Your task to perform on an android device: Open wifi settings Image 0: 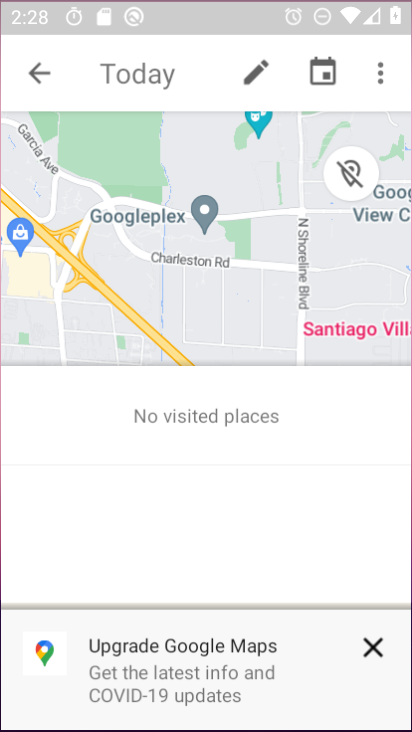
Step 0: drag from (327, 512) to (311, 176)
Your task to perform on an android device: Open wifi settings Image 1: 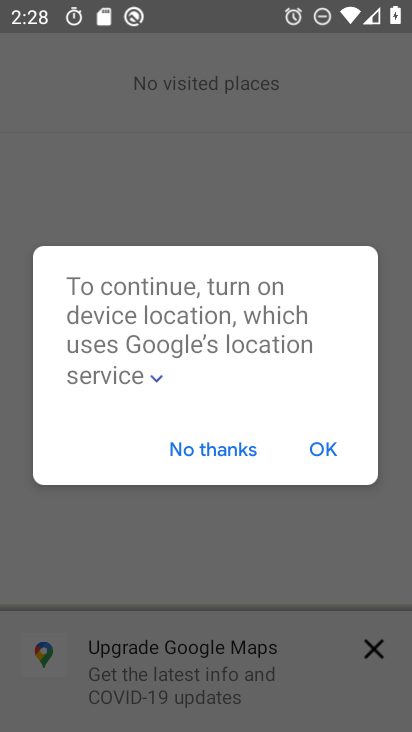
Step 1: press home button
Your task to perform on an android device: Open wifi settings Image 2: 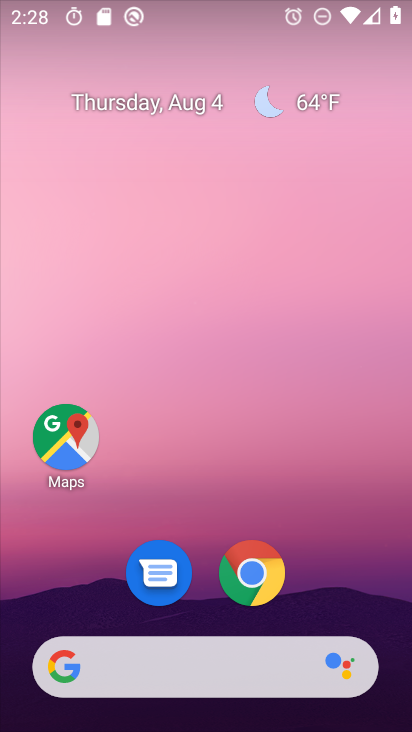
Step 2: drag from (348, 408) to (354, 36)
Your task to perform on an android device: Open wifi settings Image 3: 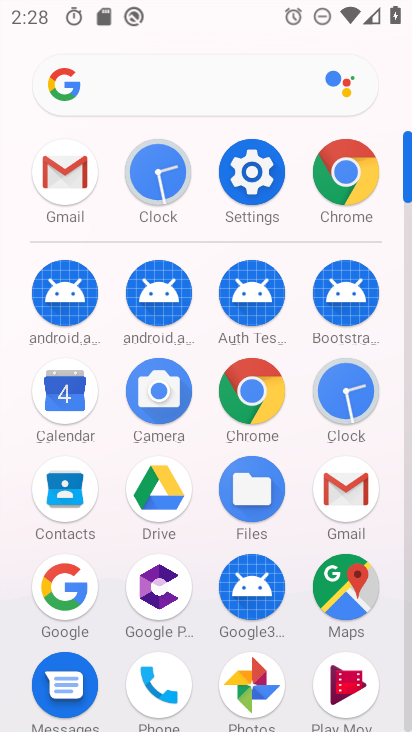
Step 3: click (245, 179)
Your task to perform on an android device: Open wifi settings Image 4: 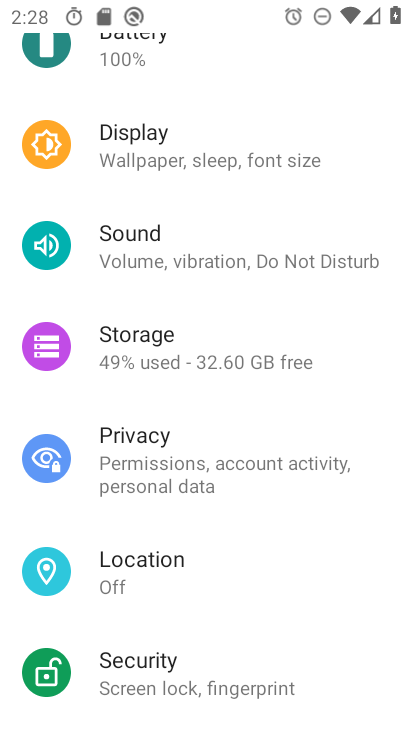
Step 4: drag from (203, 83) to (214, 581)
Your task to perform on an android device: Open wifi settings Image 5: 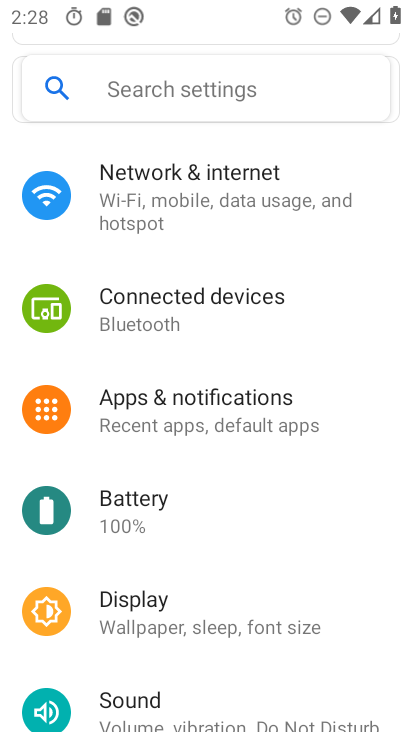
Step 5: click (206, 194)
Your task to perform on an android device: Open wifi settings Image 6: 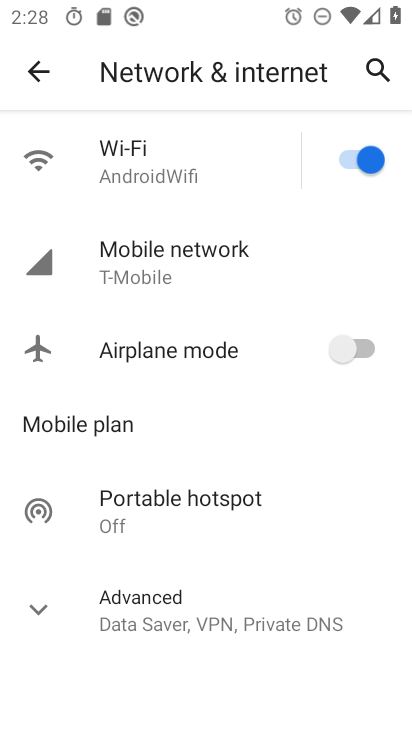
Step 6: click (176, 164)
Your task to perform on an android device: Open wifi settings Image 7: 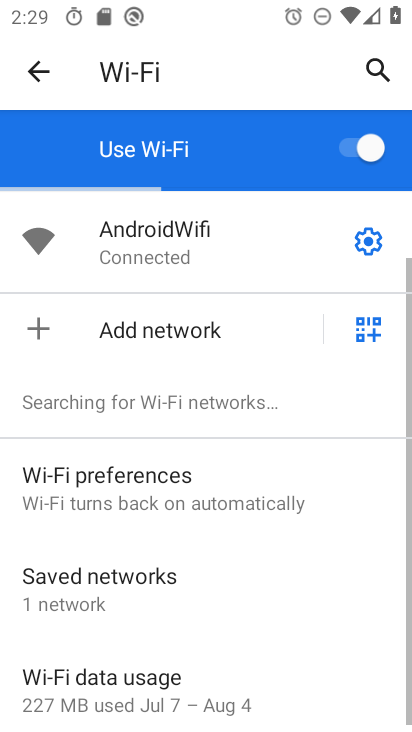
Step 7: click (372, 252)
Your task to perform on an android device: Open wifi settings Image 8: 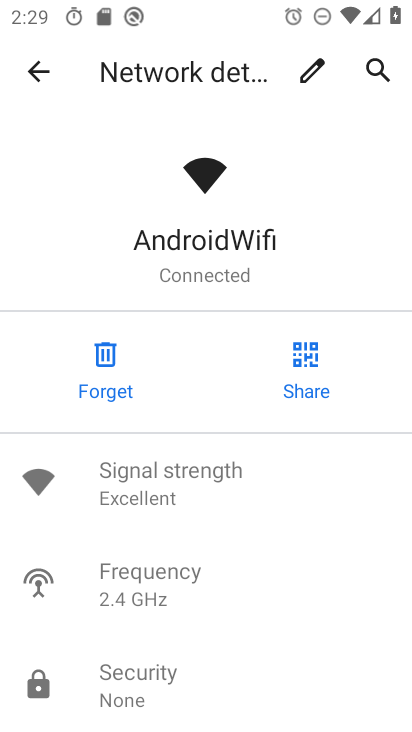
Step 8: task complete